Your task to perform on an android device: Open location settings Image 0: 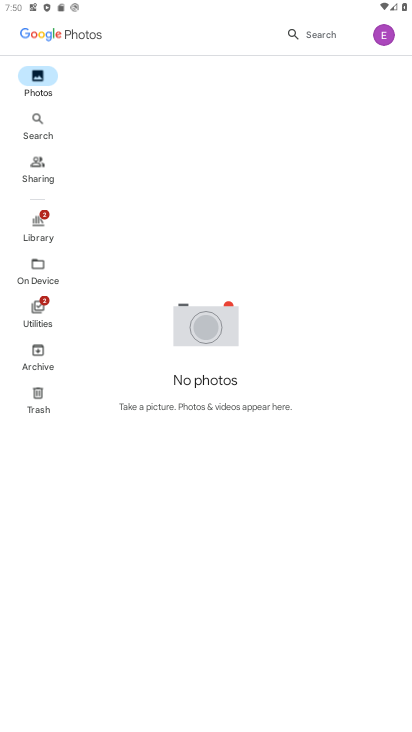
Step 0: press home button
Your task to perform on an android device: Open location settings Image 1: 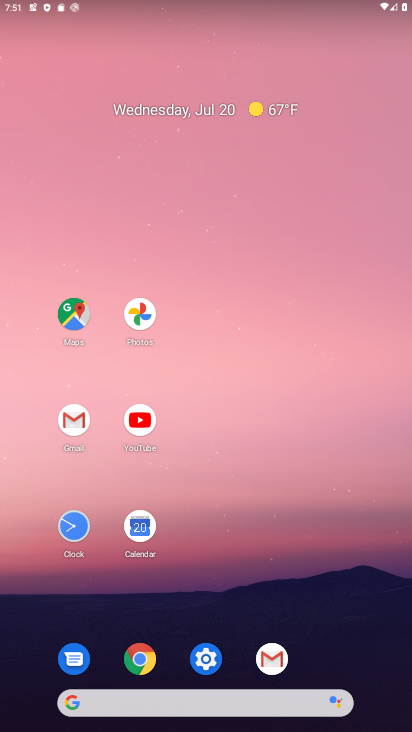
Step 1: click (209, 660)
Your task to perform on an android device: Open location settings Image 2: 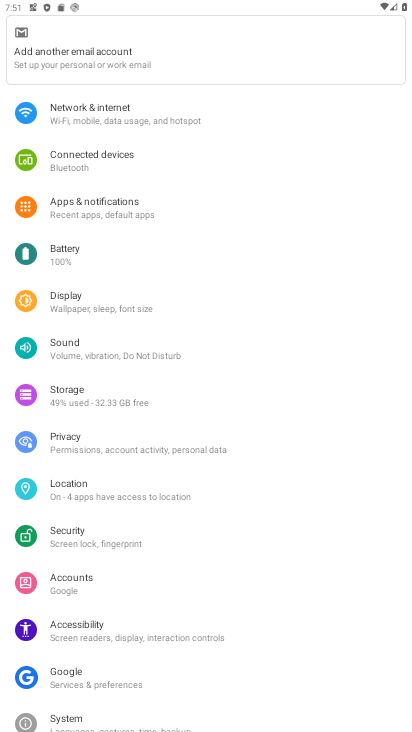
Step 2: click (66, 478)
Your task to perform on an android device: Open location settings Image 3: 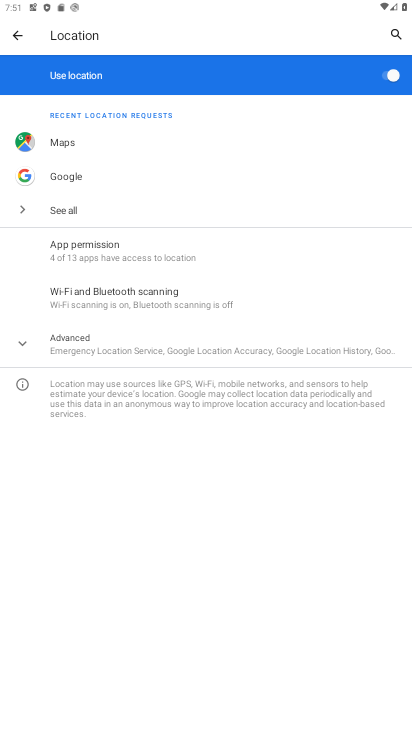
Step 3: task complete